Your task to perform on an android device: Go to Android settings Image 0: 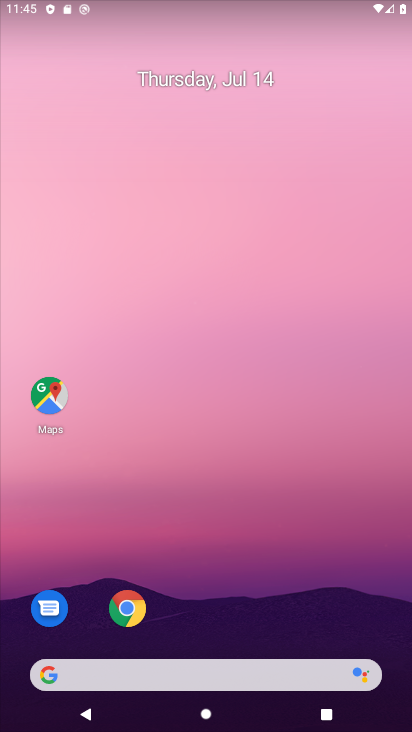
Step 0: drag from (211, 496) to (303, 22)
Your task to perform on an android device: Go to Android settings Image 1: 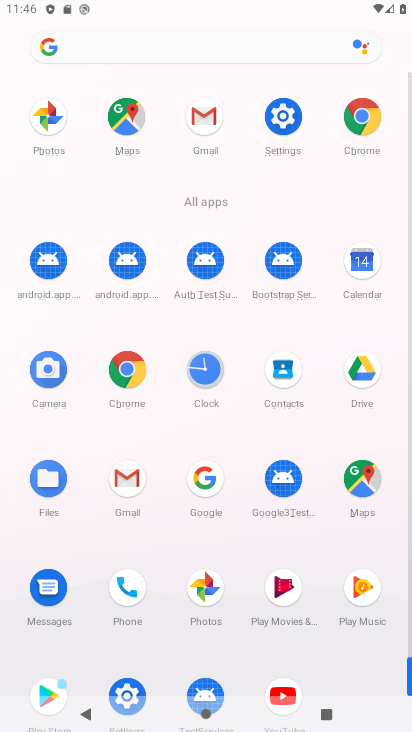
Step 1: click (281, 127)
Your task to perform on an android device: Go to Android settings Image 2: 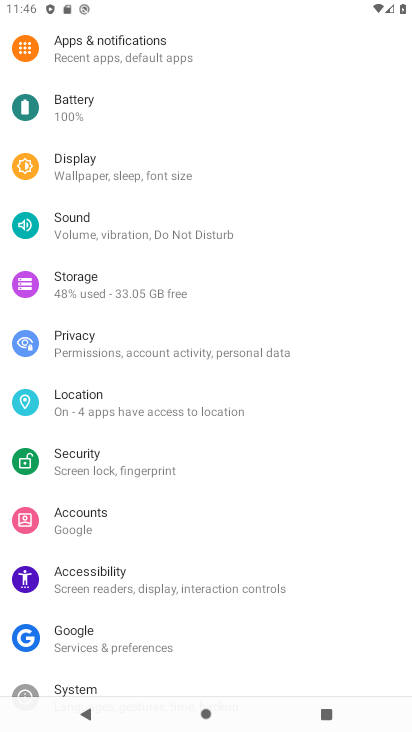
Step 2: drag from (211, 246) to (153, 654)
Your task to perform on an android device: Go to Android settings Image 3: 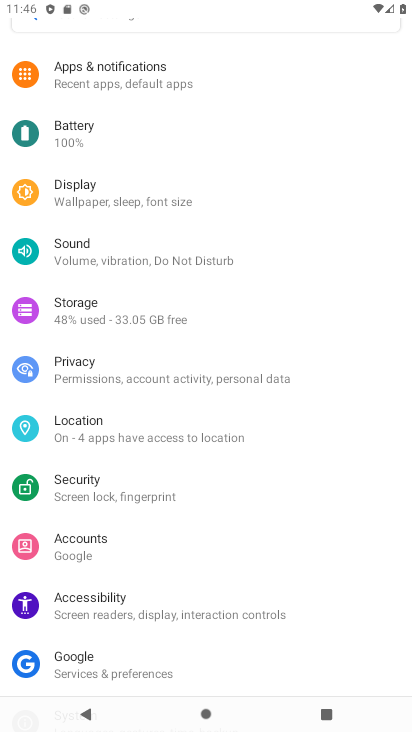
Step 3: drag from (139, 421) to (238, 13)
Your task to perform on an android device: Go to Android settings Image 4: 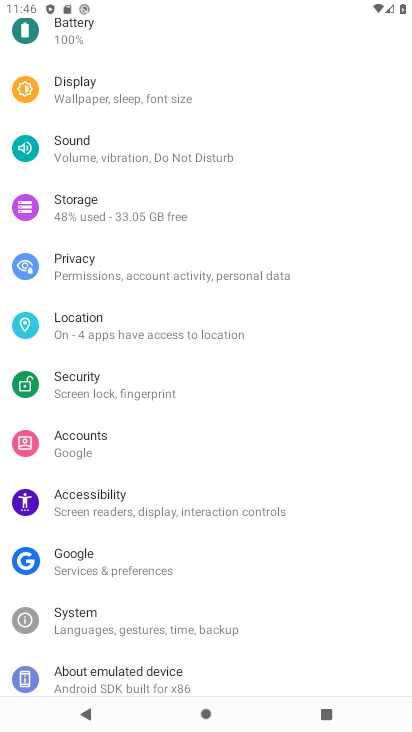
Step 4: click (123, 676)
Your task to perform on an android device: Go to Android settings Image 5: 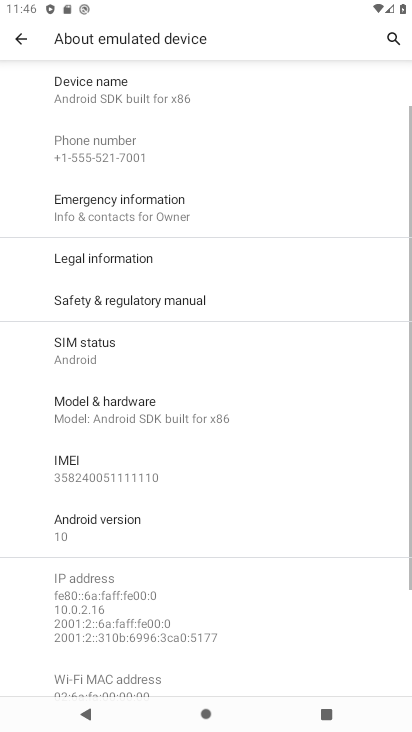
Step 5: click (106, 531)
Your task to perform on an android device: Go to Android settings Image 6: 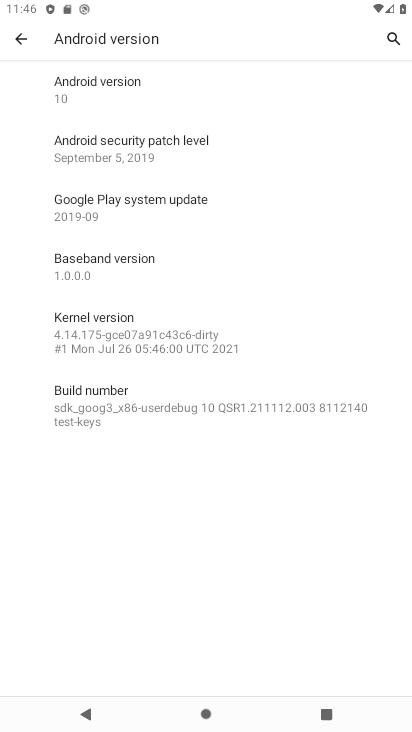
Step 6: task complete